Your task to perform on an android device: Toggle the flashlight Image 0: 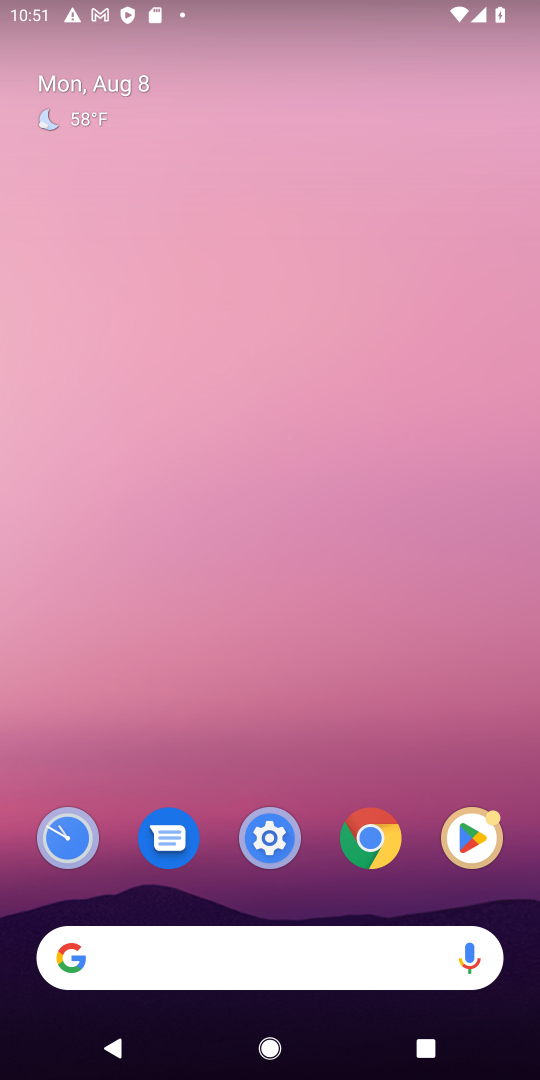
Step 0: drag from (272, 57) to (236, 962)
Your task to perform on an android device: Toggle the flashlight Image 1: 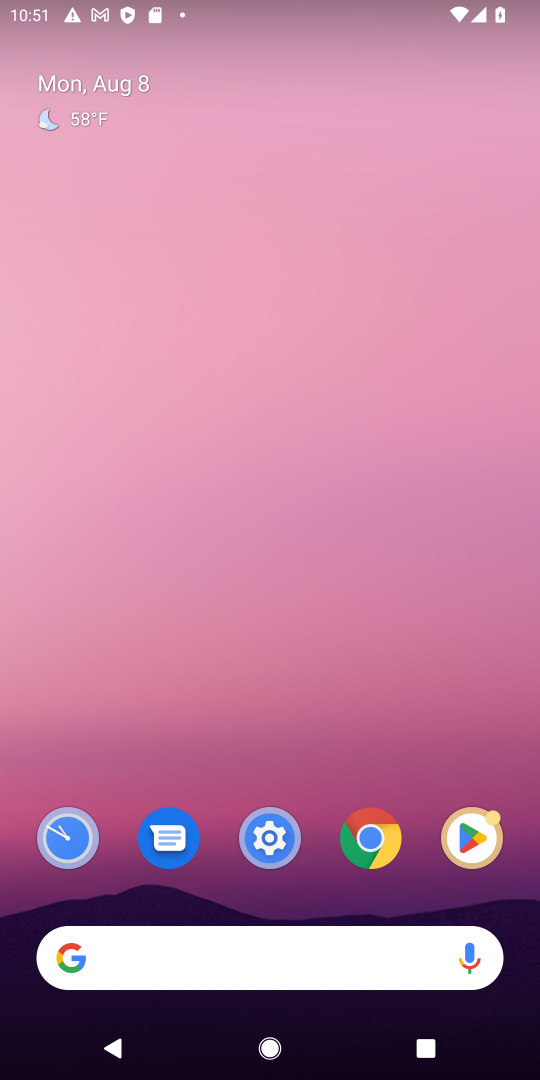
Step 1: drag from (261, 357) to (276, 636)
Your task to perform on an android device: Toggle the flashlight Image 2: 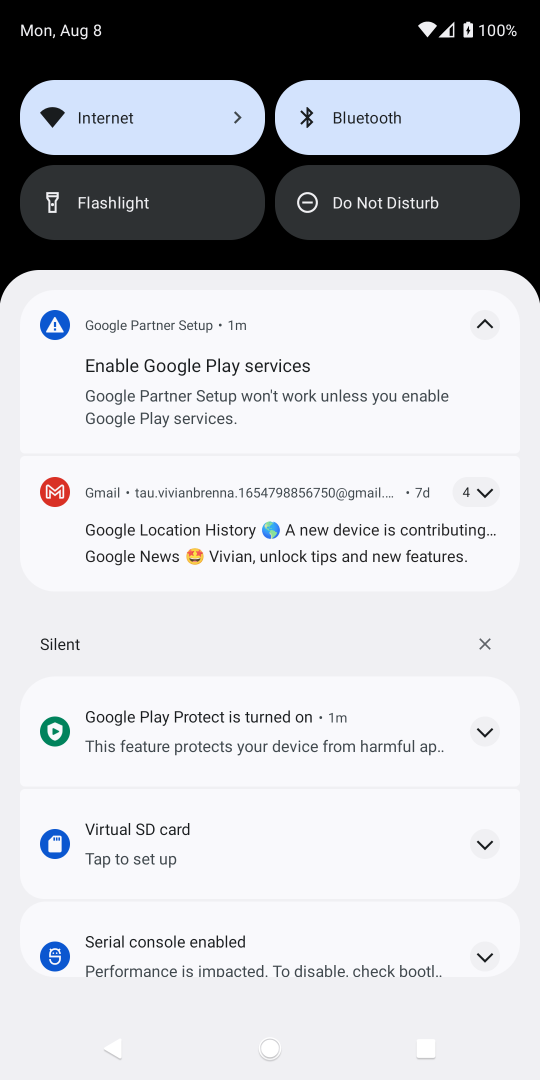
Step 2: click (187, 209)
Your task to perform on an android device: Toggle the flashlight Image 3: 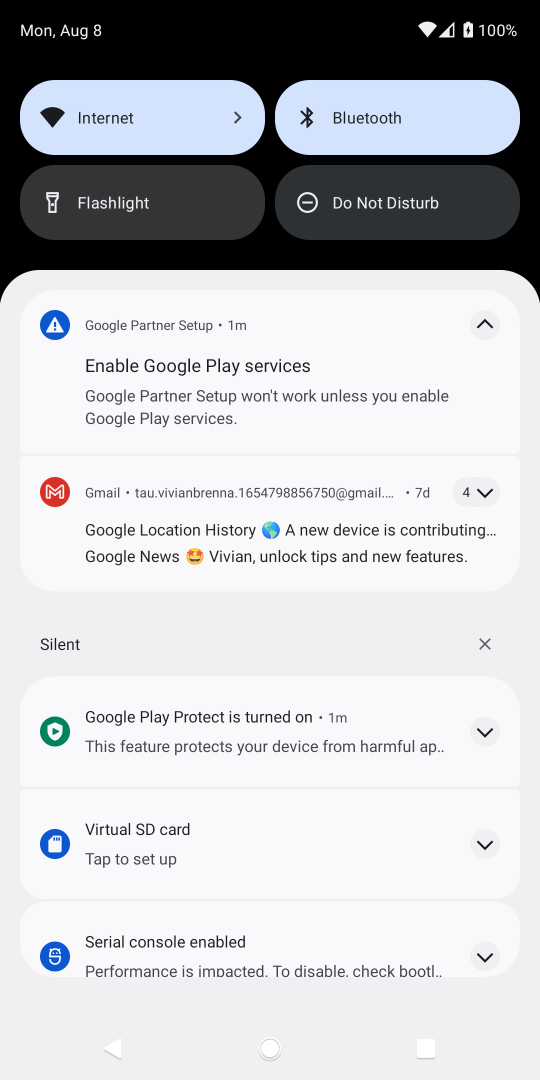
Step 3: task complete